Your task to perform on an android device: Go to Google maps Image 0: 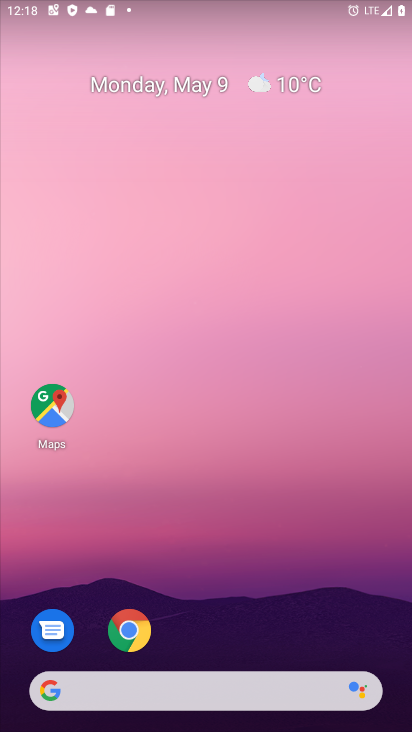
Step 0: drag from (323, 637) to (208, 17)
Your task to perform on an android device: Go to Google maps Image 1: 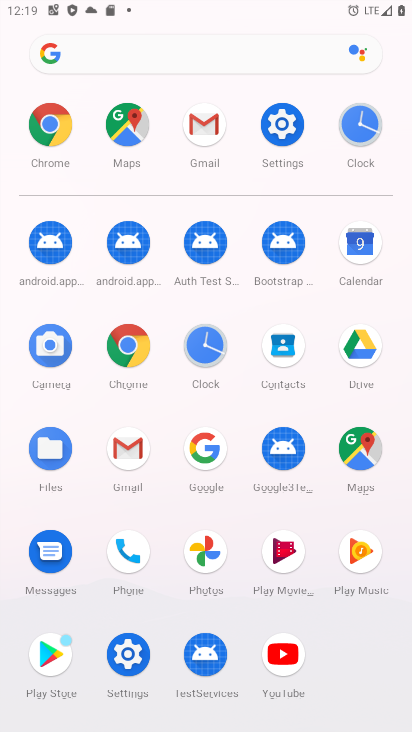
Step 1: click (351, 441)
Your task to perform on an android device: Go to Google maps Image 2: 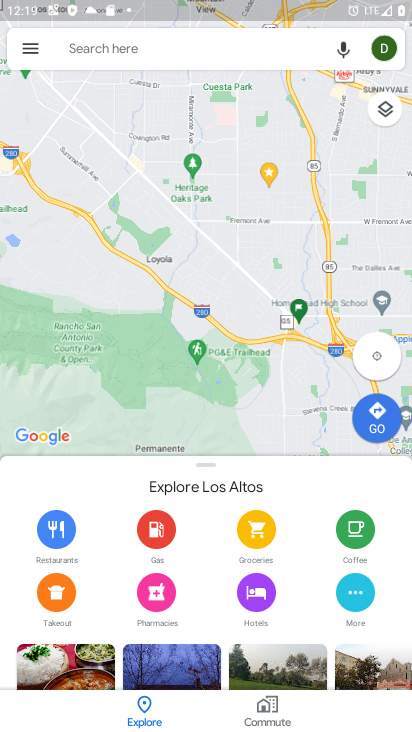
Step 2: task complete